Your task to perform on an android device: allow cookies in the chrome app Image 0: 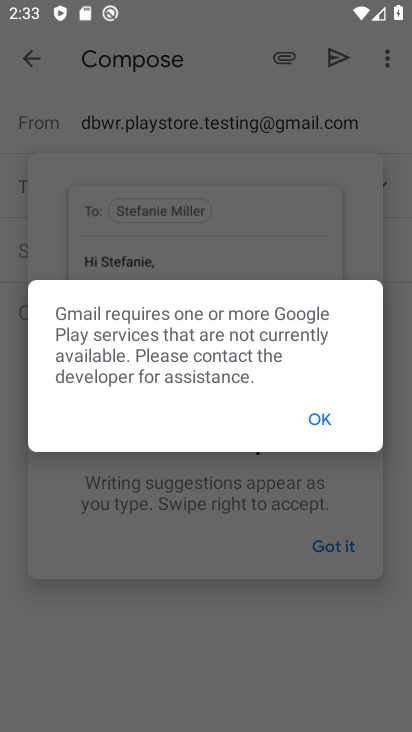
Step 0: press home button
Your task to perform on an android device: allow cookies in the chrome app Image 1: 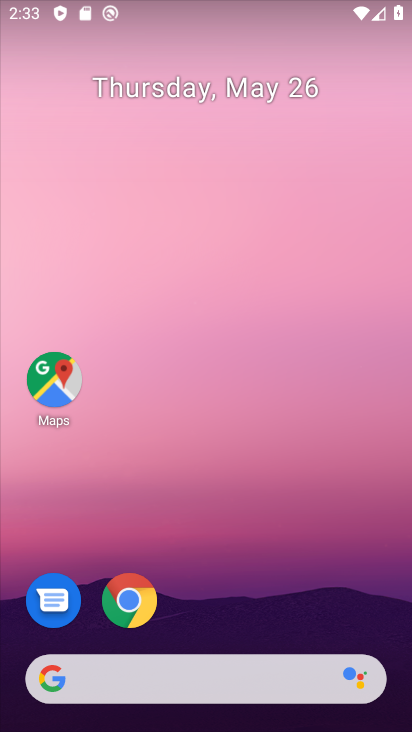
Step 1: click (138, 608)
Your task to perform on an android device: allow cookies in the chrome app Image 2: 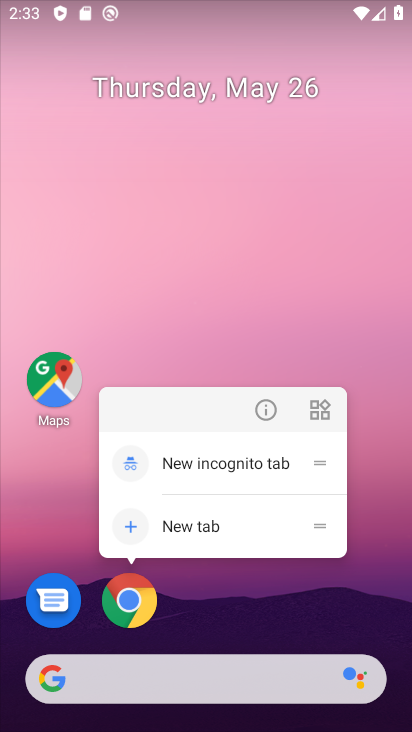
Step 2: click (127, 599)
Your task to perform on an android device: allow cookies in the chrome app Image 3: 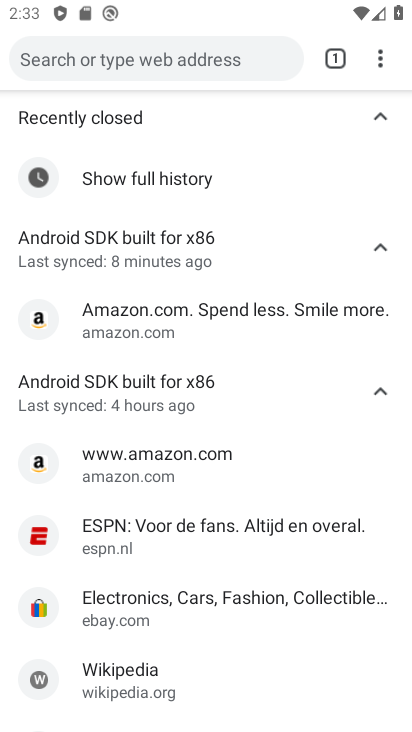
Step 3: click (384, 67)
Your task to perform on an android device: allow cookies in the chrome app Image 4: 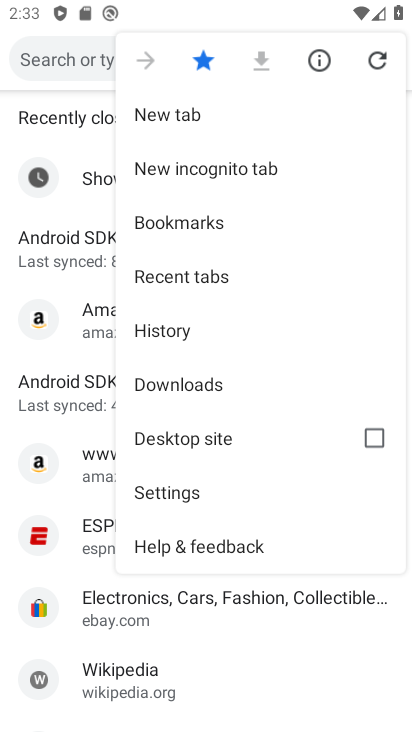
Step 4: click (224, 483)
Your task to perform on an android device: allow cookies in the chrome app Image 5: 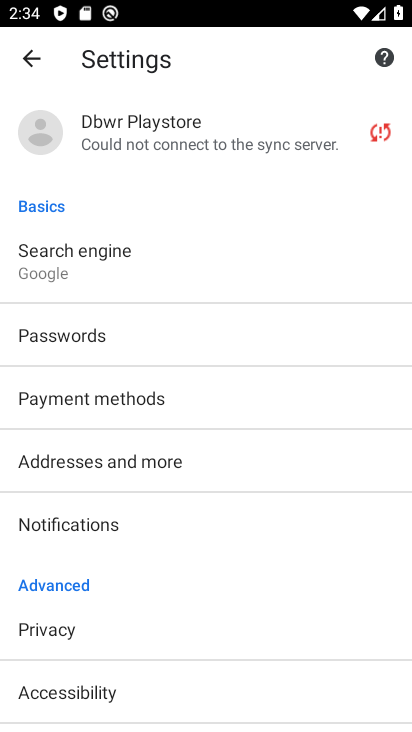
Step 5: drag from (236, 559) to (279, 203)
Your task to perform on an android device: allow cookies in the chrome app Image 6: 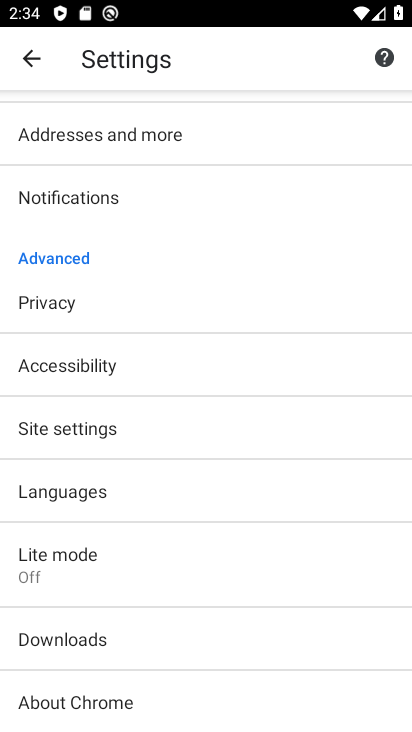
Step 6: click (175, 426)
Your task to perform on an android device: allow cookies in the chrome app Image 7: 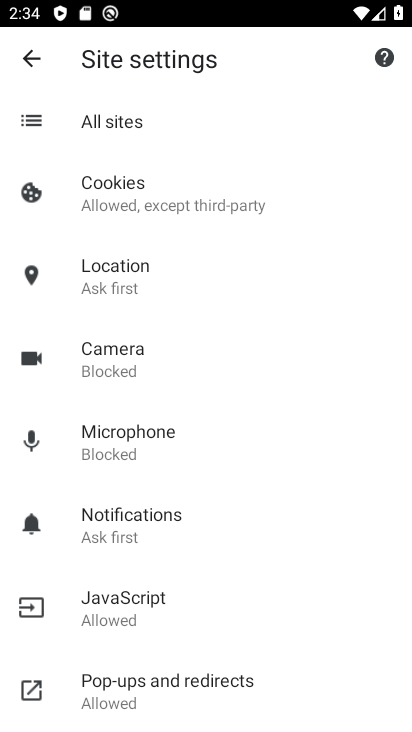
Step 7: click (288, 210)
Your task to perform on an android device: allow cookies in the chrome app Image 8: 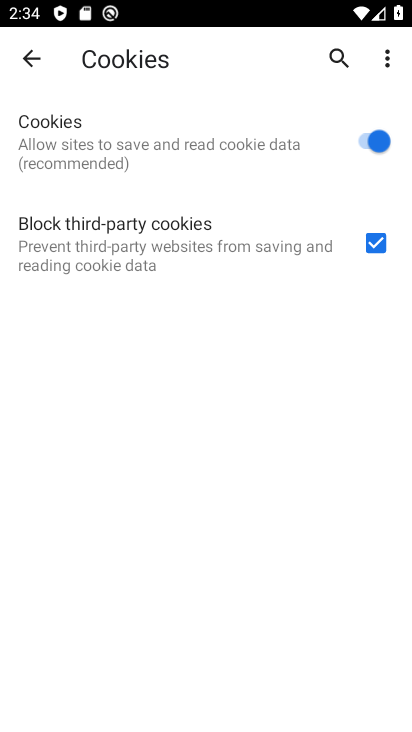
Step 8: task complete